Your task to perform on an android device: create a new album in the google photos Image 0: 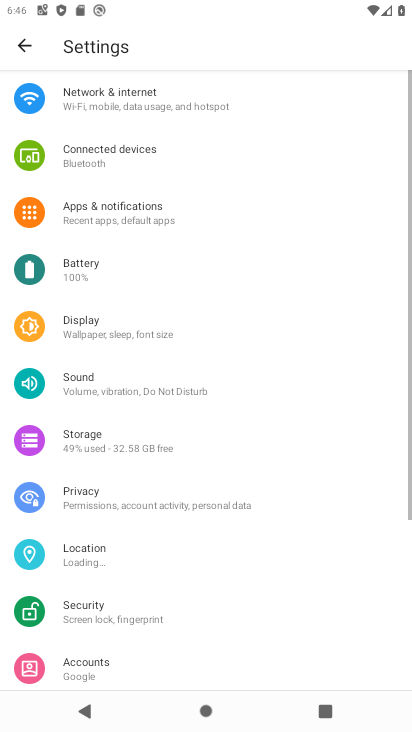
Step 0: press home button
Your task to perform on an android device: create a new album in the google photos Image 1: 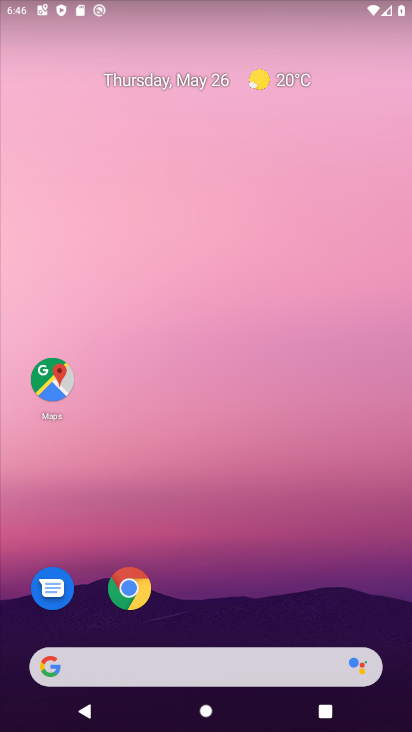
Step 1: drag from (380, 609) to (245, 48)
Your task to perform on an android device: create a new album in the google photos Image 2: 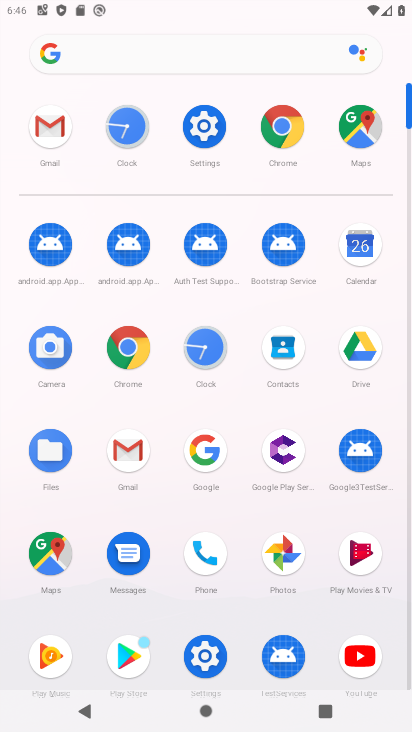
Step 2: click (278, 576)
Your task to perform on an android device: create a new album in the google photos Image 3: 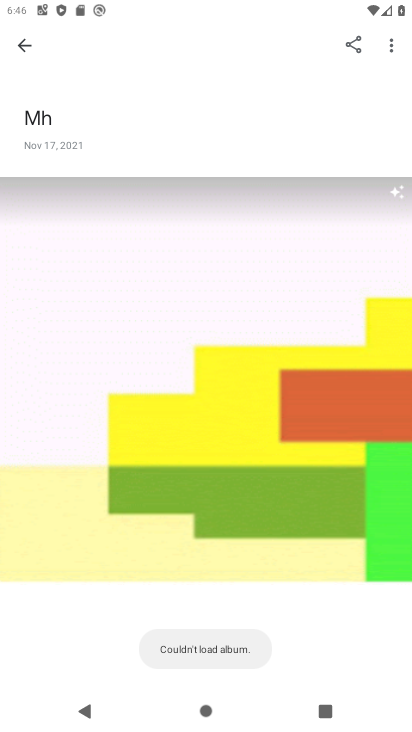
Step 3: press back button
Your task to perform on an android device: create a new album in the google photos Image 4: 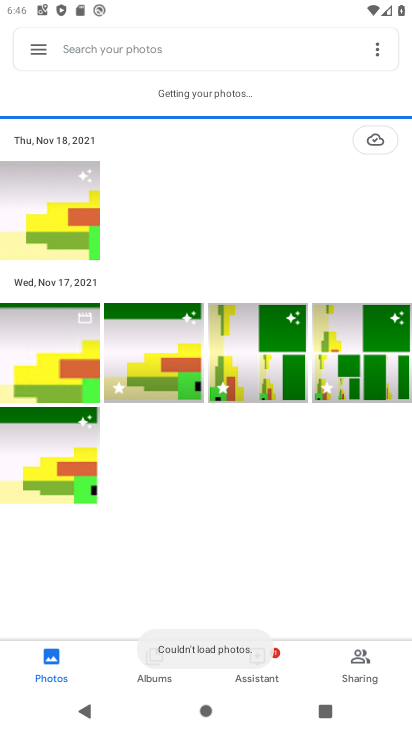
Step 4: click (344, 370)
Your task to perform on an android device: create a new album in the google photos Image 5: 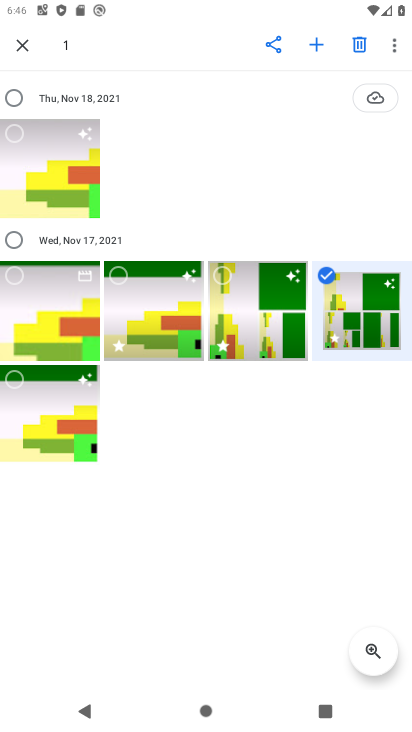
Step 5: click (311, 33)
Your task to perform on an android device: create a new album in the google photos Image 6: 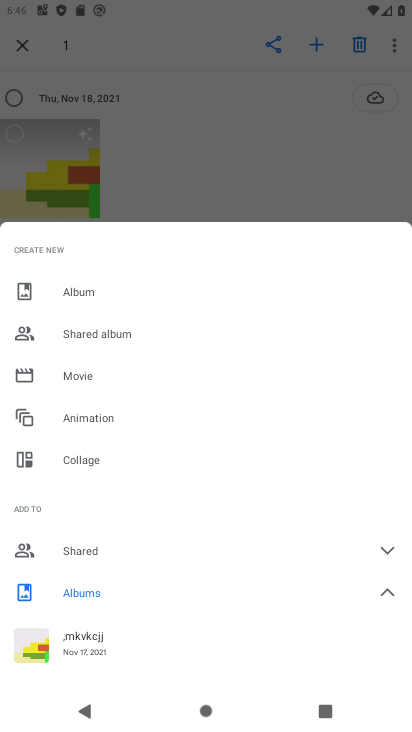
Step 6: click (110, 285)
Your task to perform on an android device: create a new album in the google photos Image 7: 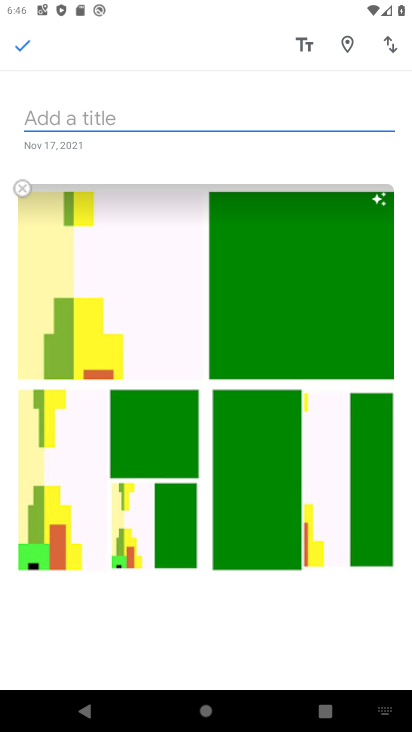
Step 7: type "RcB"
Your task to perform on an android device: create a new album in the google photos Image 8: 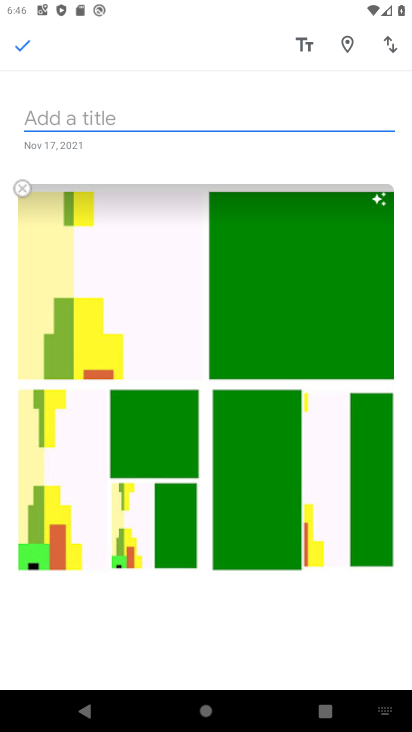
Step 8: click (23, 55)
Your task to perform on an android device: create a new album in the google photos Image 9: 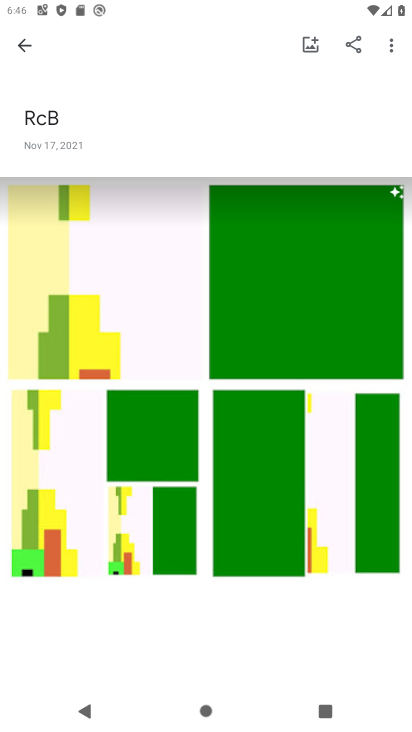
Step 9: task complete